Your task to perform on an android device: change notification settings in the gmail app Image 0: 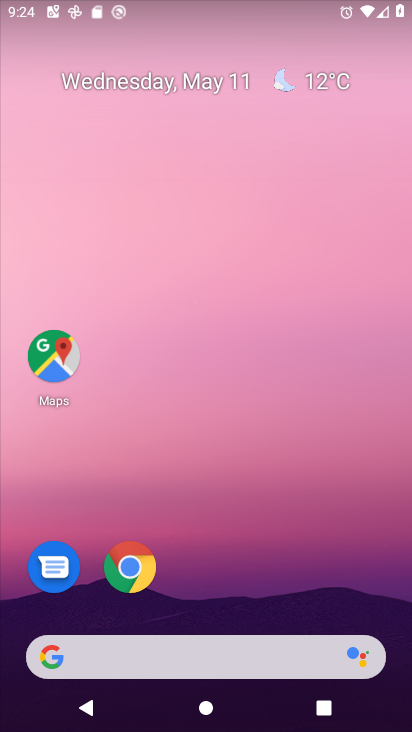
Step 0: drag from (234, 557) to (157, 112)
Your task to perform on an android device: change notification settings in the gmail app Image 1: 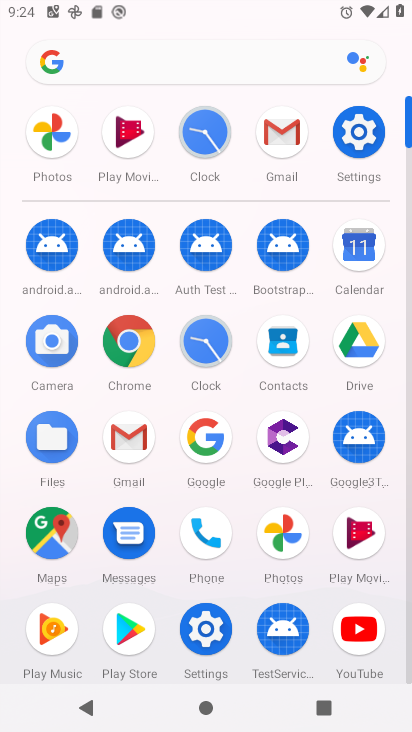
Step 1: click (281, 131)
Your task to perform on an android device: change notification settings in the gmail app Image 2: 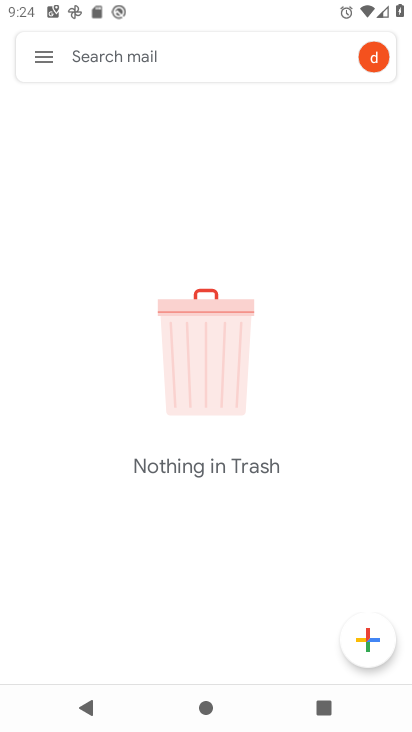
Step 2: click (40, 57)
Your task to perform on an android device: change notification settings in the gmail app Image 3: 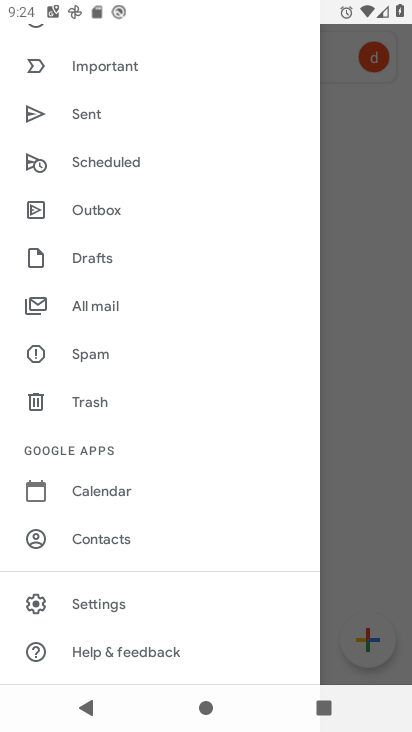
Step 3: click (120, 590)
Your task to perform on an android device: change notification settings in the gmail app Image 4: 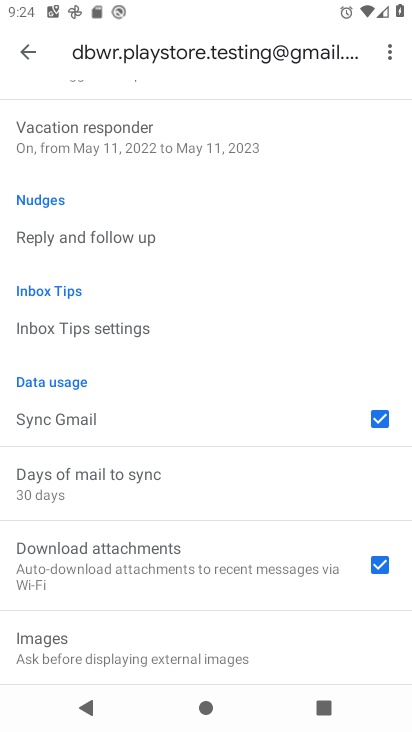
Step 4: drag from (200, 186) to (154, 729)
Your task to perform on an android device: change notification settings in the gmail app Image 5: 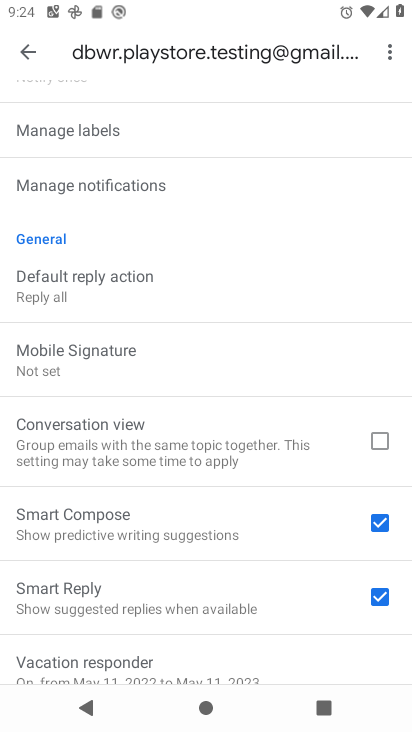
Step 5: drag from (164, 222) to (107, 674)
Your task to perform on an android device: change notification settings in the gmail app Image 6: 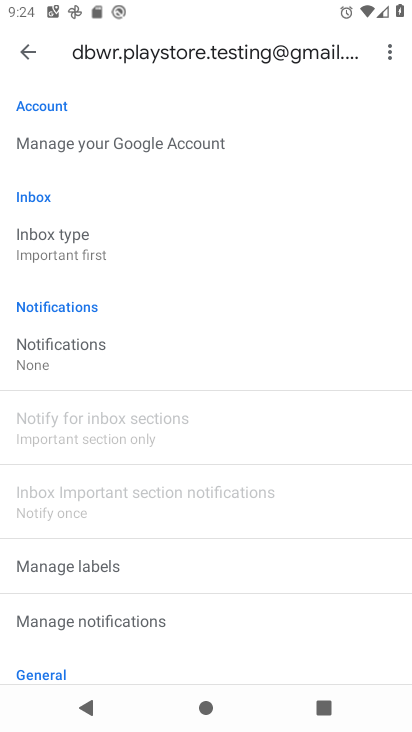
Step 6: click (89, 351)
Your task to perform on an android device: change notification settings in the gmail app Image 7: 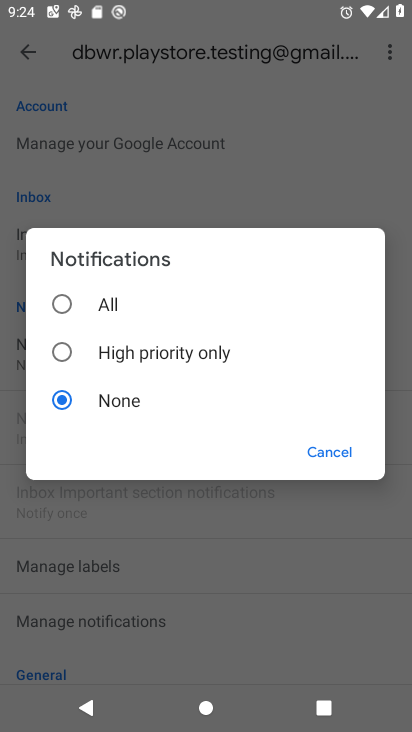
Step 7: click (103, 308)
Your task to perform on an android device: change notification settings in the gmail app Image 8: 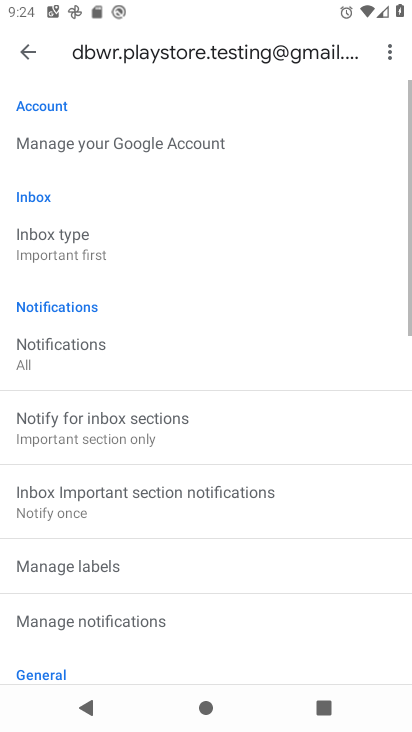
Step 8: task complete